Your task to perform on an android device: change your default location settings in chrome Image 0: 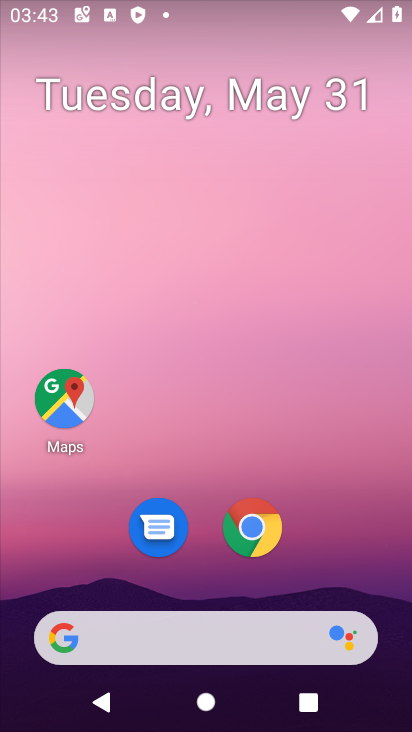
Step 0: click (241, 524)
Your task to perform on an android device: change your default location settings in chrome Image 1: 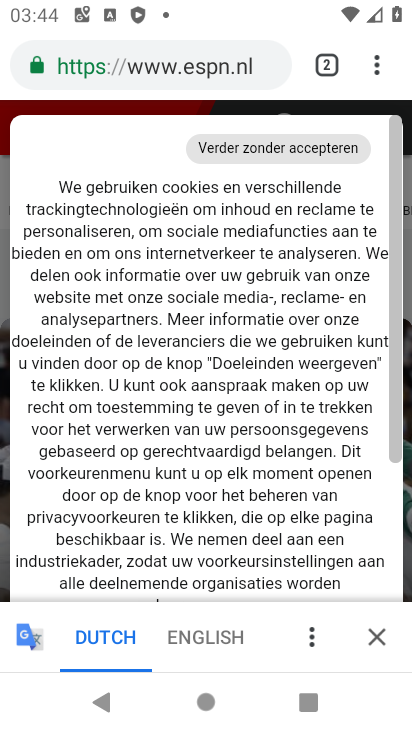
Step 1: click (378, 70)
Your task to perform on an android device: change your default location settings in chrome Image 2: 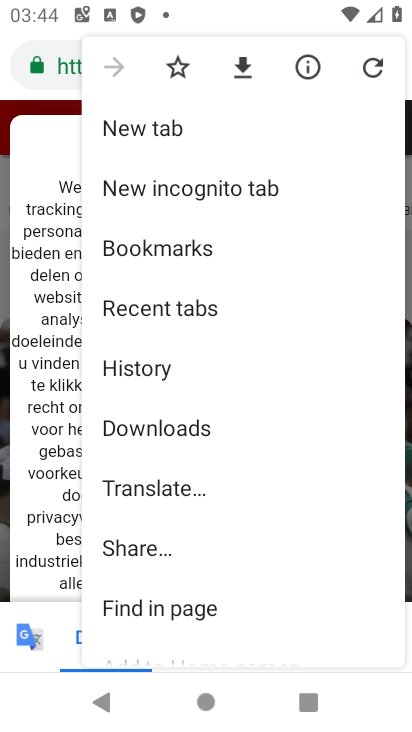
Step 2: drag from (283, 571) to (298, 168)
Your task to perform on an android device: change your default location settings in chrome Image 3: 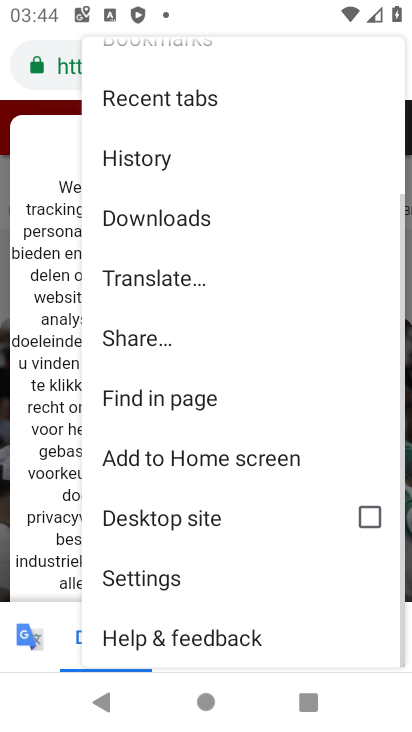
Step 3: click (157, 568)
Your task to perform on an android device: change your default location settings in chrome Image 4: 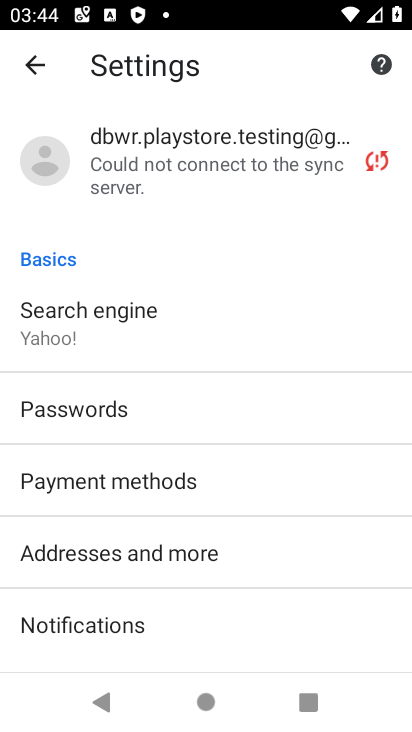
Step 4: drag from (215, 611) to (252, 147)
Your task to perform on an android device: change your default location settings in chrome Image 5: 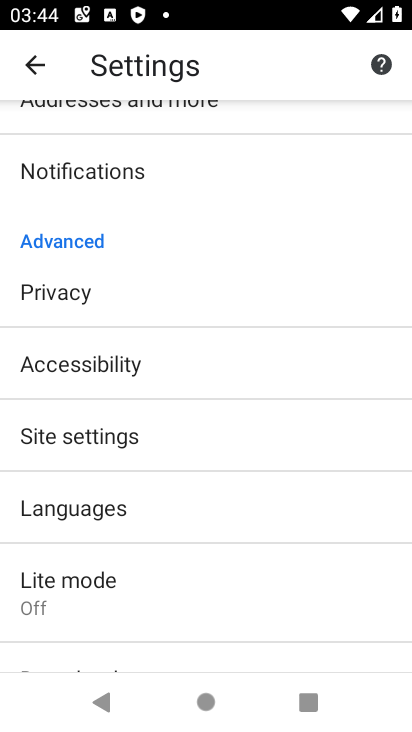
Step 5: click (87, 444)
Your task to perform on an android device: change your default location settings in chrome Image 6: 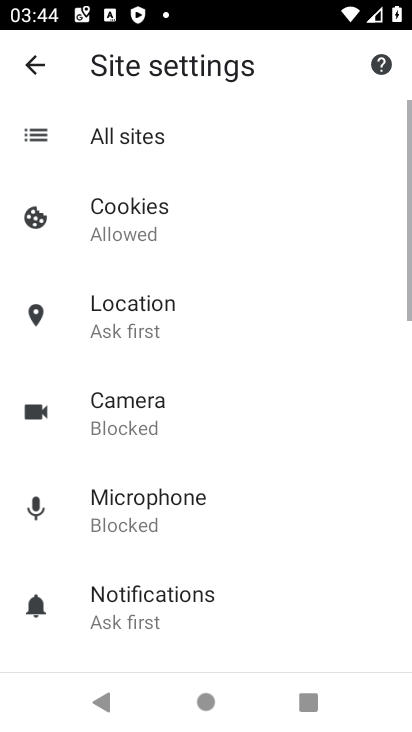
Step 6: click (154, 329)
Your task to perform on an android device: change your default location settings in chrome Image 7: 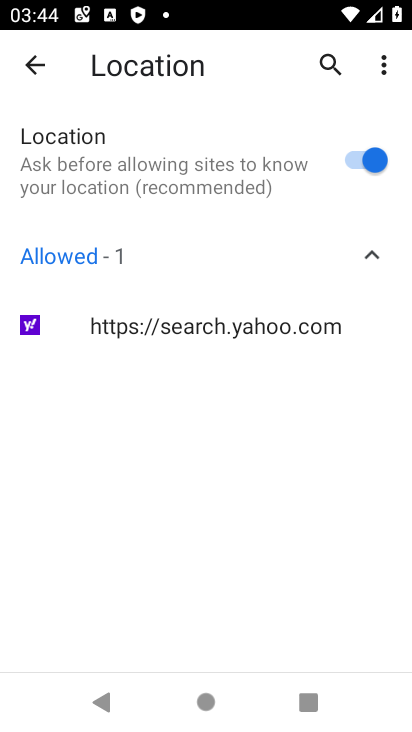
Step 7: click (353, 156)
Your task to perform on an android device: change your default location settings in chrome Image 8: 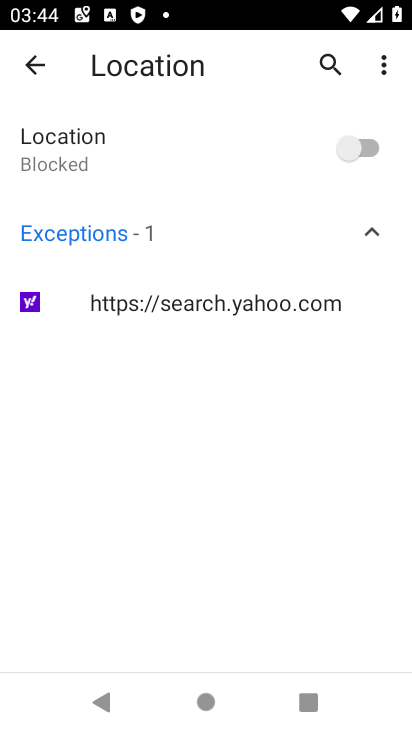
Step 8: task complete